Your task to perform on an android device: open a bookmark in the chrome app Image 0: 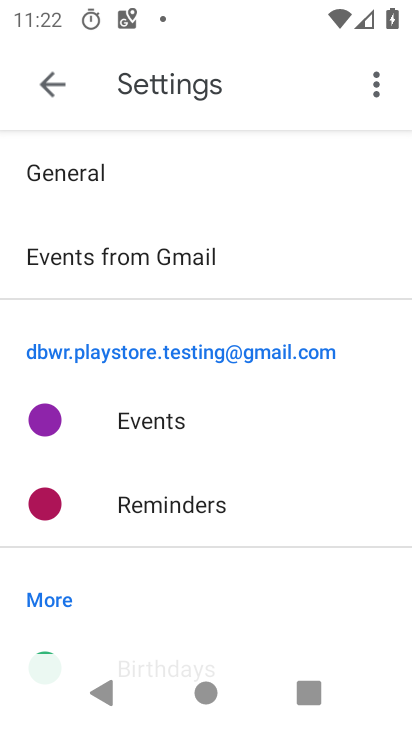
Step 0: press home button
Your task to perform on an android device: open a bookmark in the chrome app Image 1: 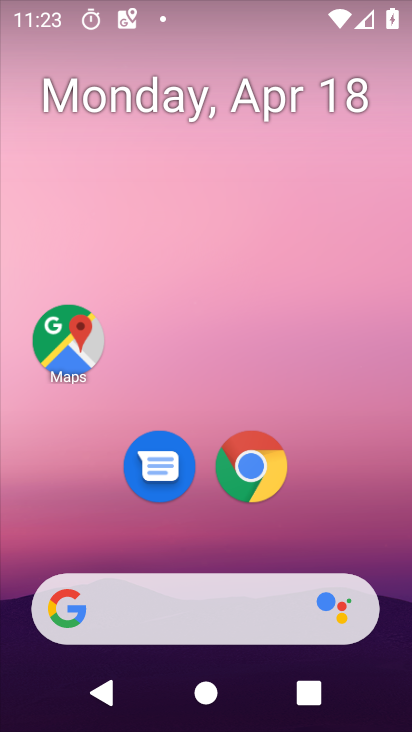
Step 1: drag from (208, 533) to (208, 371)
Your task to perform on an android device: open a bookmark in the chrome app Image 2: 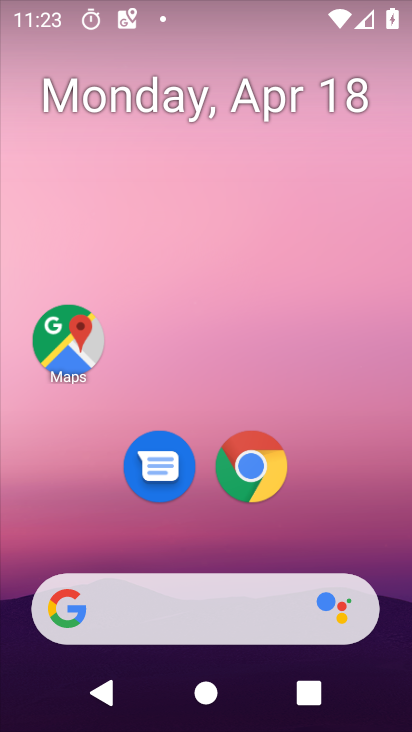
Step 2: click (273, 488)
Your task to perform on an android device: open a bookmark in the chrome app Image 3: 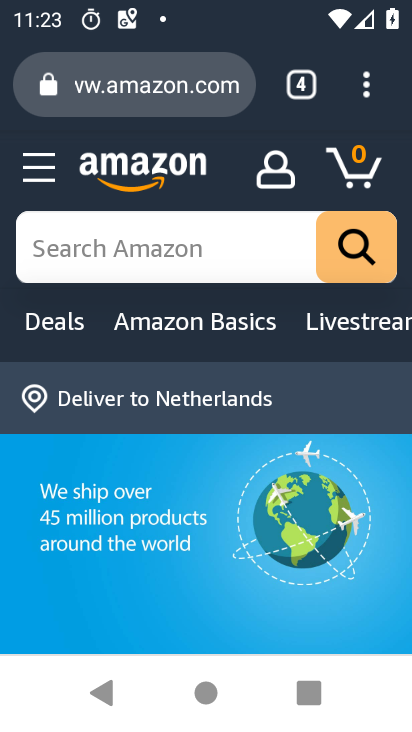
Step 3: click (358, 100)
Your task to perform on an android device: open a bookmark in the chrome app Image 4: 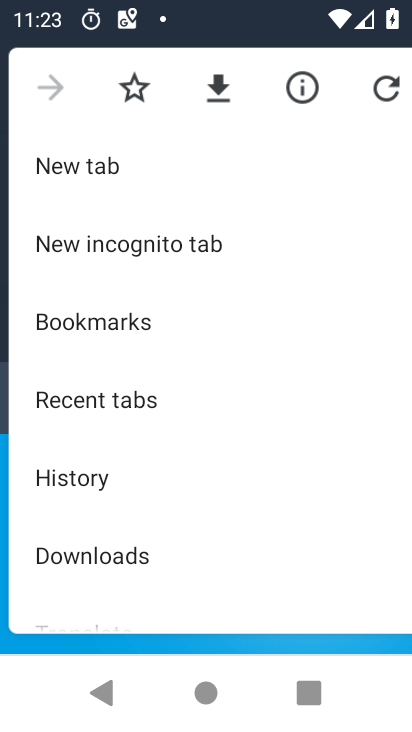
Step 4: click (184, 324)
Your task to perform on an android device: open a bookmark in the chrome app Image 5: 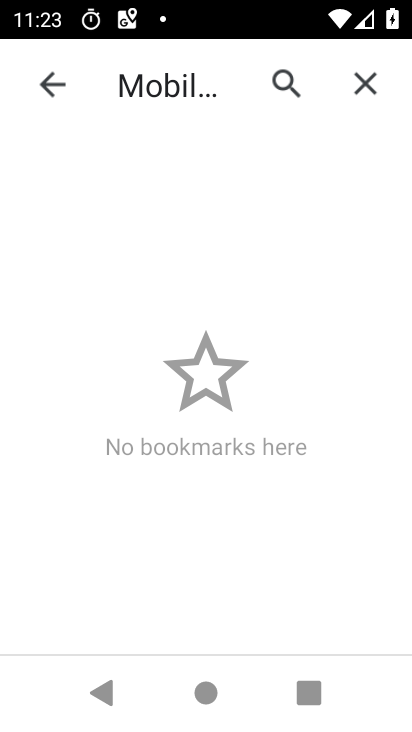
Step 5: task complete